Your task to perform on an android device: View the shopping cart on target. Search for "usb-c to usb-b" on target, select the first entry, add it to the cart, then select checkout. Image 0: 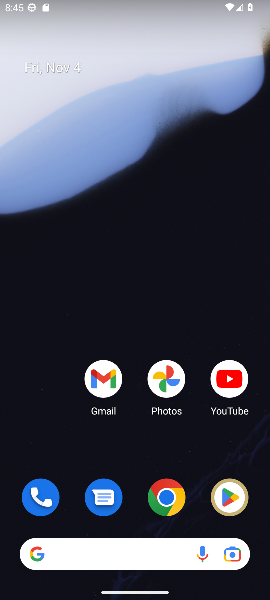
Step 0: click (164, 507)
Your task to perform on an android device: View the shopping cart on target. Search for "usb-c to usb-b" on target, select the first entry, add it to the cart, then select checkout. Image 1: 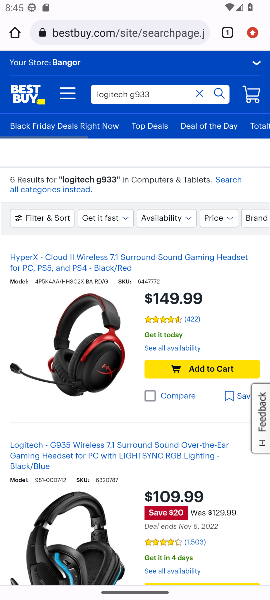
Step 1: click (126, 35)
Your task to perform on an android device: View the shopping cart on target. Search for "usb-c to usb-b" on target, select the first entry, add it to the cart, then select checkout. Image 2: 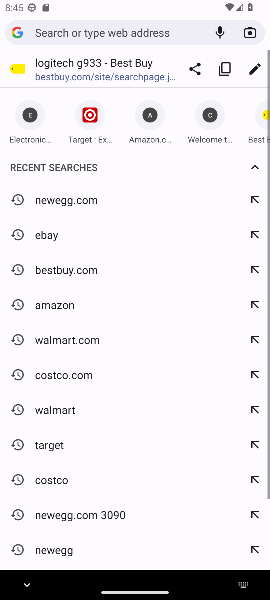
Step 2: click (83, 131)
Your task to perform on an android device: View the shopping cart on target. Search for "usb-c to usb-b" on target, select the first entry, add it to the cart, then select checkout. Image 3: 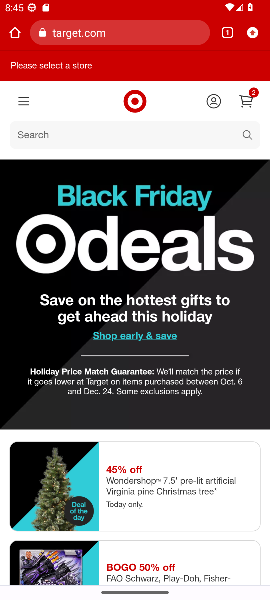
Step 3: click (246, 104)
Your task to perform on an android device: View the shopping cart on target. Search for "usb-c to usb-b" on target, select the first entry, add it to the cart, then select checkout. Image 4: 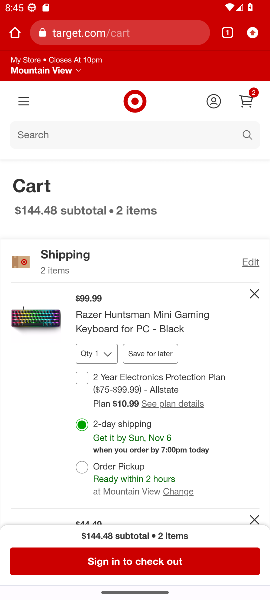
Step 4: drag from (123, 428) to (147, 179)
Your task to perform on an android device: View the shopping cart on target. Search for "usb-c to usb-b" on target, select the first entry, add it to the cart, then select checkout. Image 5: 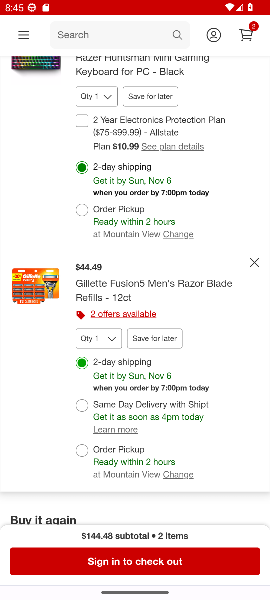
Step 5: click (174, 31)
Your task to perform on an android device: View the shopping cart on target. Search for "usb-c to usb-b" on target, select the first entry, add it to the cart, then select checkout. Image 6: 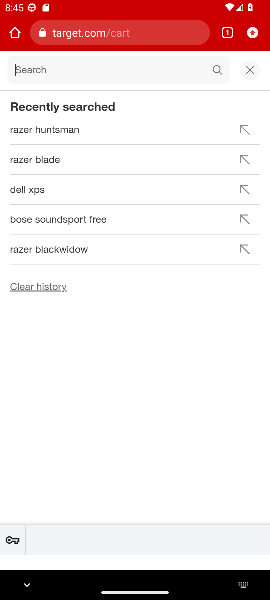
Step 6: type "usb-c to usb-b"
Your task to perform on an android device: View the shopping cart on target. Search for "usb-c to usb-b" on target, select the first entry, add it to the cart, then select checkout. Image 7: 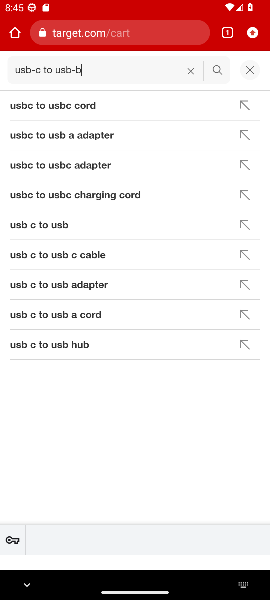
Step 7: click (218, 72)
Your task to perform on an android device: View the shopping cart on target. Search for "usb-c to usb-b" on target, select the first entry, add it to the cart, then select checkout. Image 8: 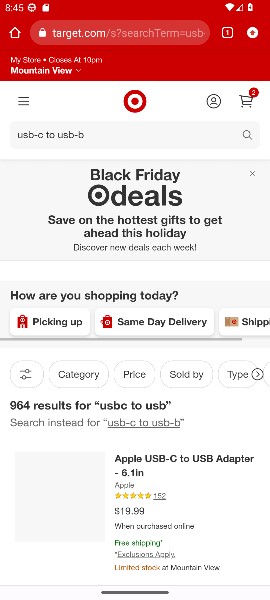
Step 8: task complete